Your task to perform on an android device: turn on bluetooth scan Image 0: 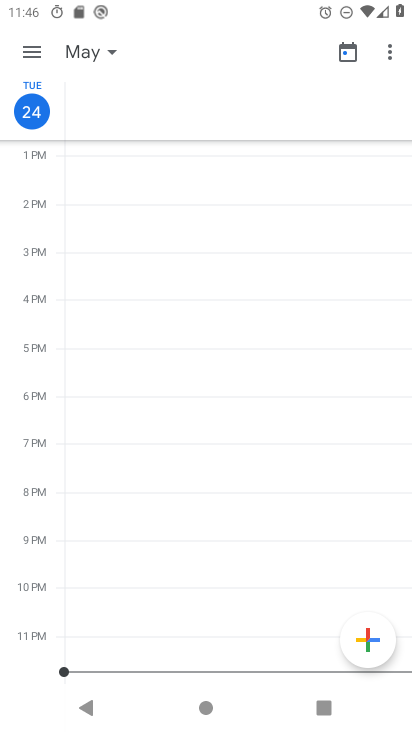
Step 0: press home button
Your task to perform on an android device: turn on bluetooth scan Image 1: 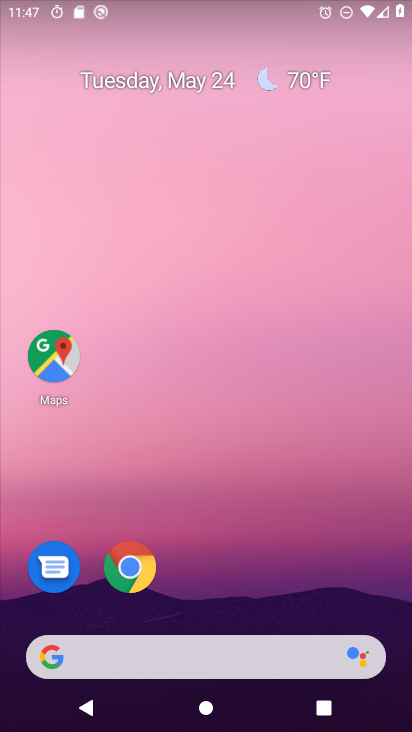
Step 1: drag from (395, 678) to (379, 208)
Your task to perform on an android device: turn on bluetooth scan Image 2: 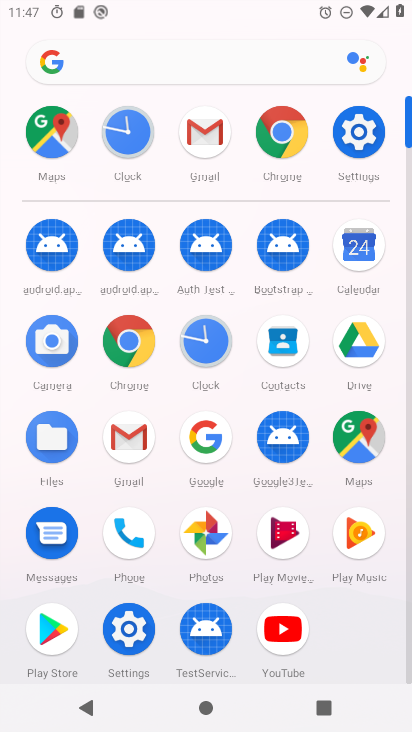
Step 2: click (356, 115)
Your task to perform on an android device: turn on bluetooth scan Image 3: 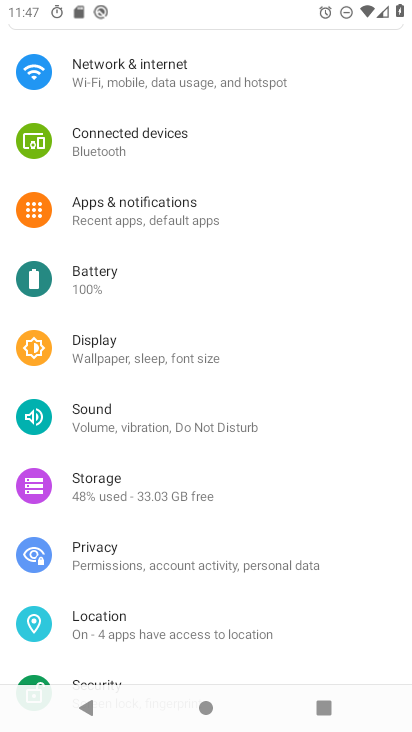
Step 3: click (109, 632)
Your task to perform on an android device: turn on bluetooth scan Image 4: 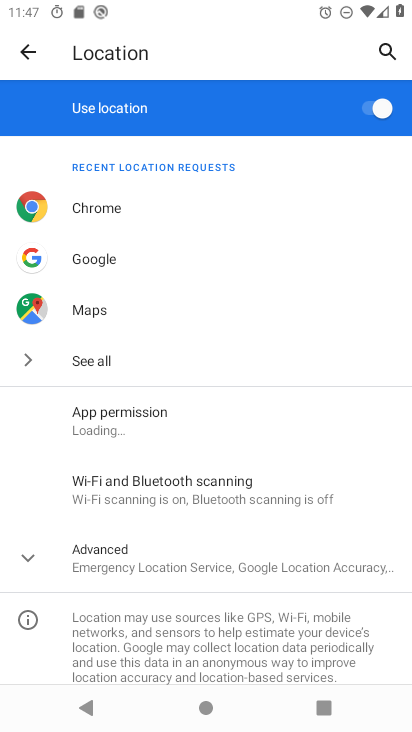
Step 4: click (183, 472)
Your task to perform on an android device: turn on bluetooth scan Image 5: 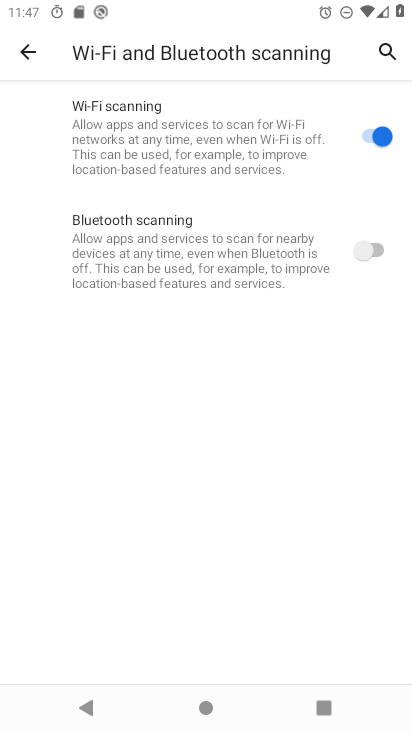
Step 5: click (378, 248)
Your task to perform on an android device: turn on bluetooth scan Image 6: 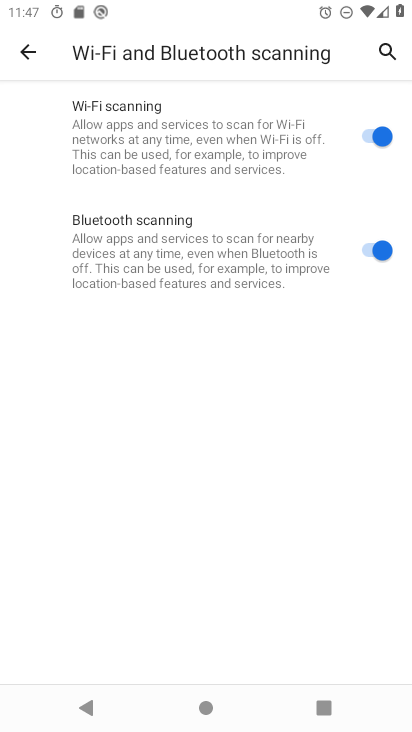
Step 6: task complete